Your task to perform on an android device: change the clock display to analog Image 0: 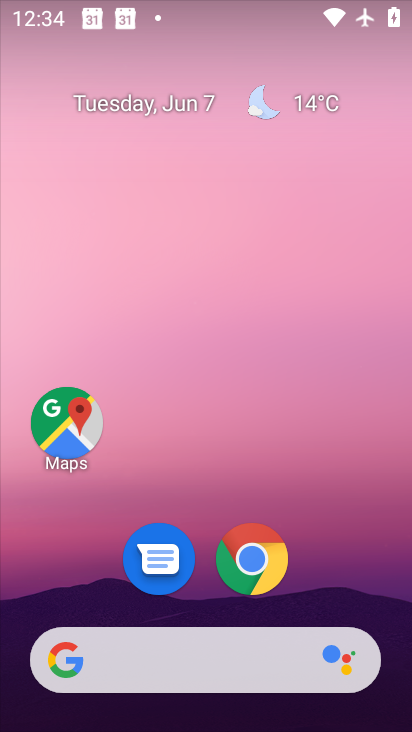
Step 0: drag from (391, 631) to (339, 91)
Your task to perform on an android device: change the clock display to analog Image 1: 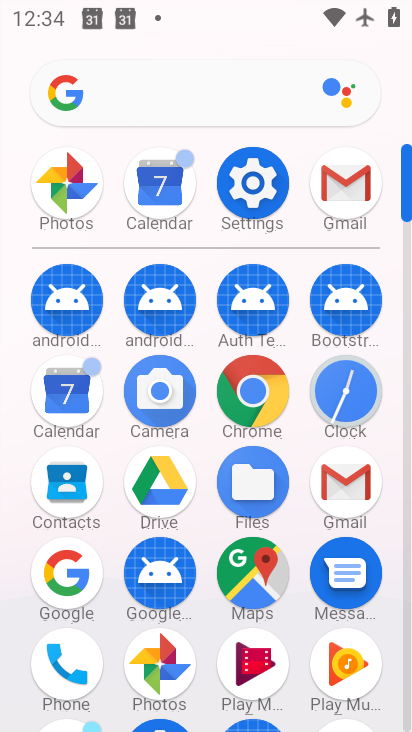
Step 1: click (347, 388)
Your task to perform on an android device: change the clock display to analog Image 2: 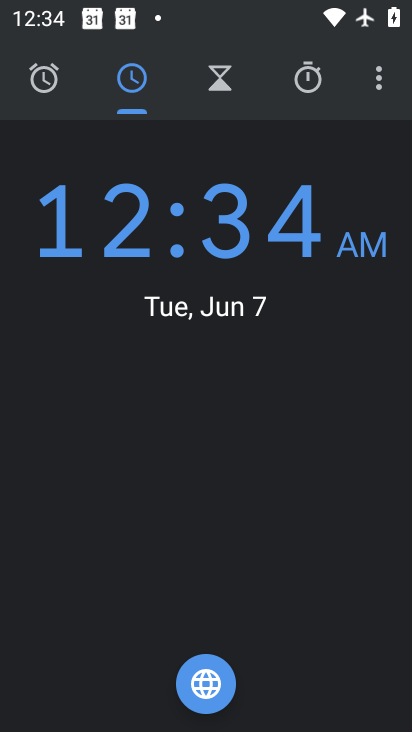
Step 2: click (377, 83)
Your task to perform on an android device: change the clock display to analog Image 3: 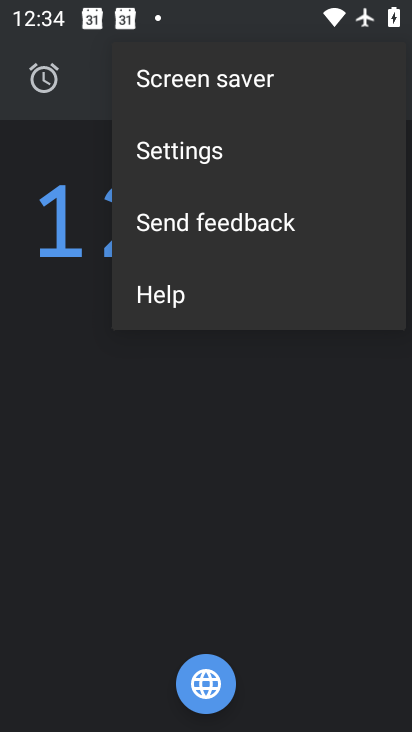
Step 3: click (187, 155)
Your task to perform on an android device: change the clock display to analog Image 4: 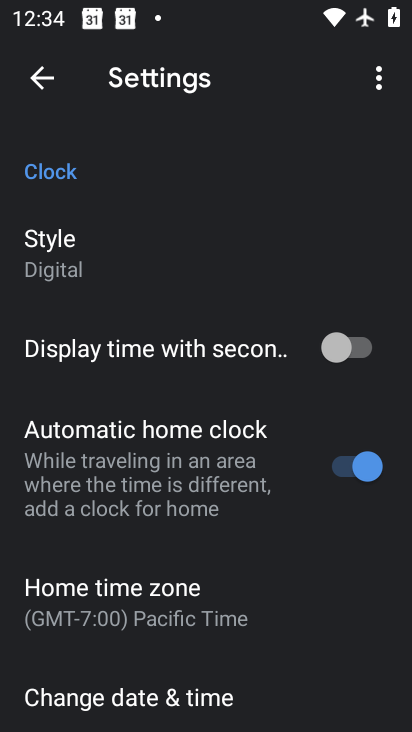
Step 4: click (31, 247)
Your task to perform on an android device: change the clock display to analog Image 5: 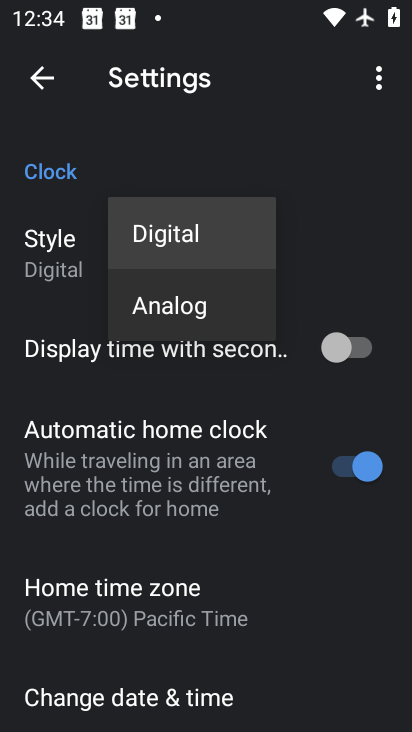
Step 5: click (172, 304)
Your task to perform on an android device: change the clock display to analog Image 6: 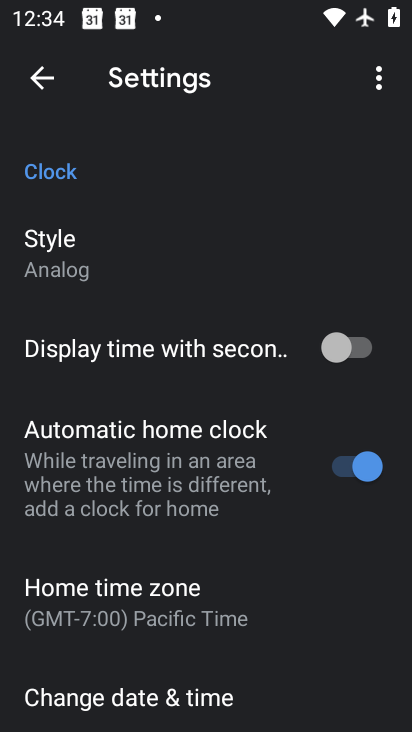
Step 6: task complete